Your task to perform on an android device: change text size in settings app Image 0: 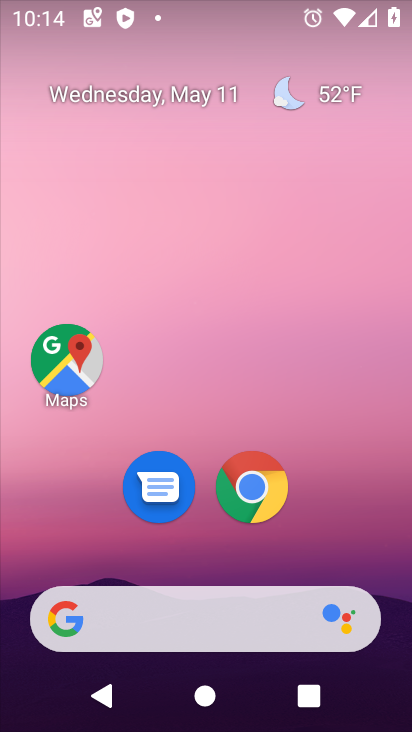
Step 0: drag from (192, 537) to (205, 104)
Your task to perform on an android device: change text size in settings app Image 1: 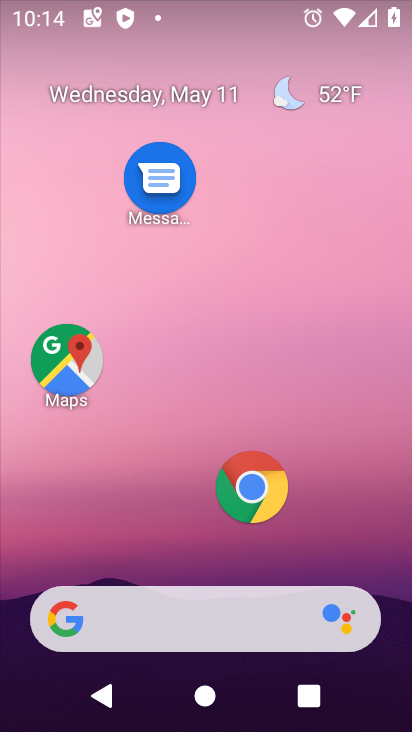
Step 1: drag from (198, 561) to (205, 183)
Your task to perform on an android device: change text size in settings app Image 2: 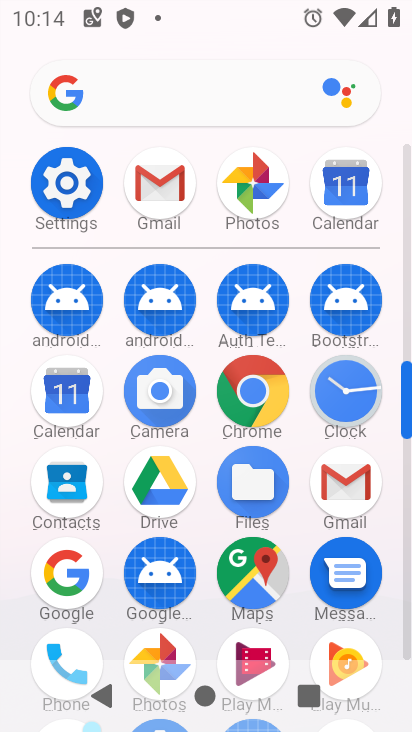
Step 2: click (77, 181)
Your task to perform on an android device: change text size in settings app Image 3: 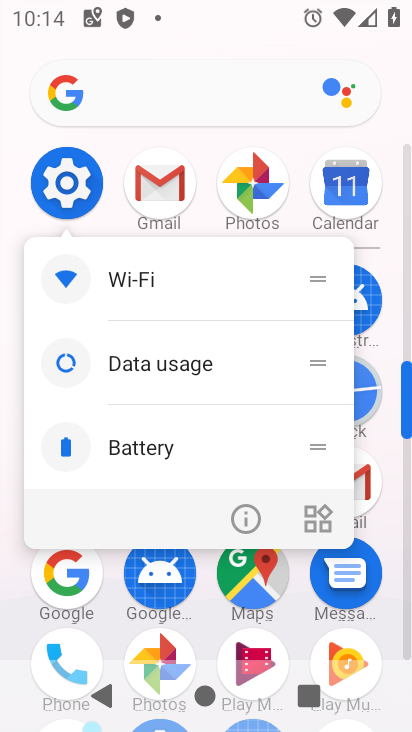
Step 3: click (77, 181)
Your task to perform on an android device: change text size in settings app Image 4: 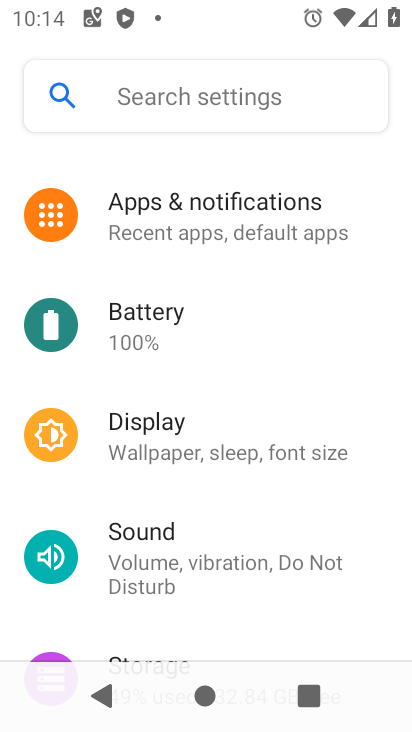
Step 4: click (167, 422)
Your task to perform on an android device: change text size in settings app Image 5: 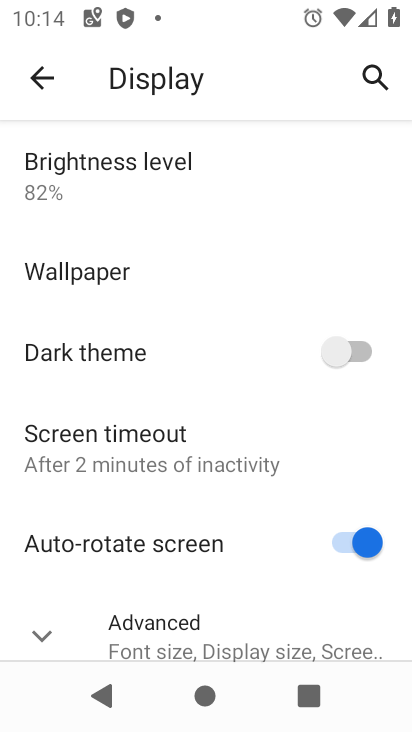
Step 5: drag from (196, 564) to (203, 395)
Your task to perform on an android device: change text size in settings app Image 6: 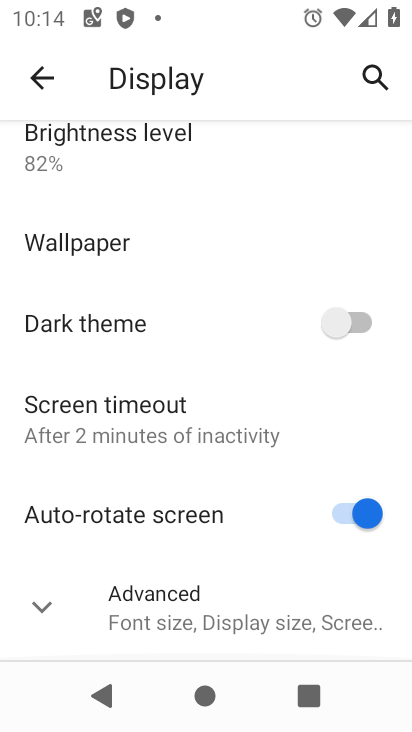
Step 6: click (189, 607)
Your task to perform on an android device: change text size in settings app Image 7: 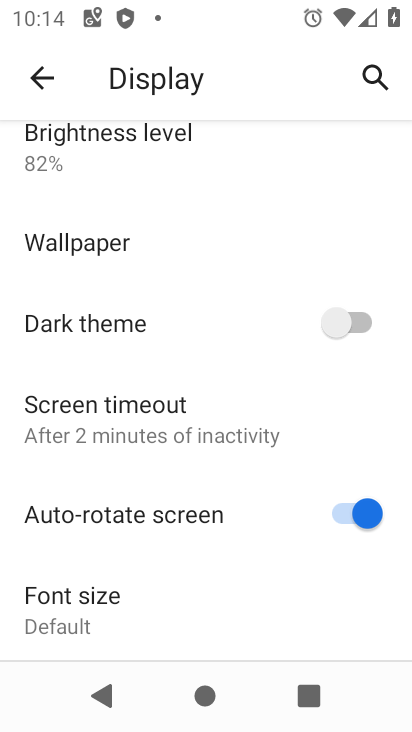
Step 7: click (125, 593)
Your task to perform on an android device: change text size in settings app Image 8: 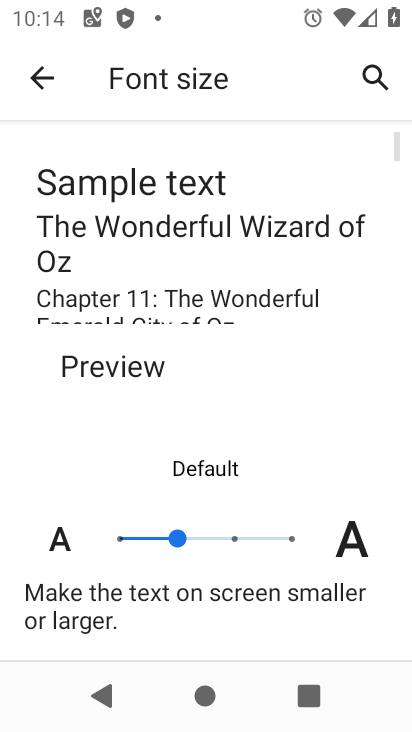
Step 8: click (121, 540)
Your task to perform on an android device: change text size in settings app Image 9: 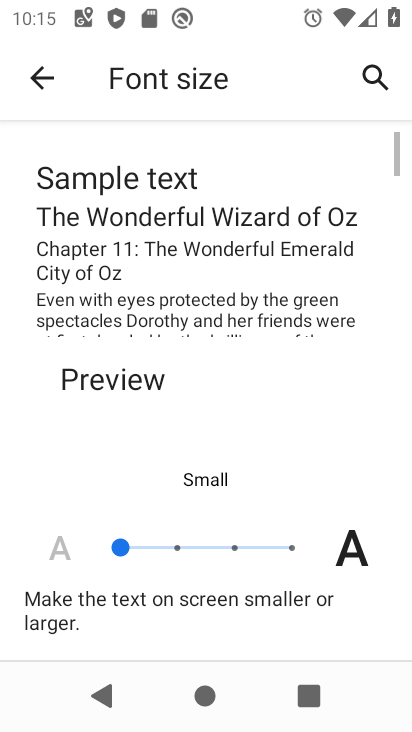
Step 9: task complete